Your task to perform on an android device: Go to calendar. Show me events next week Image 0: 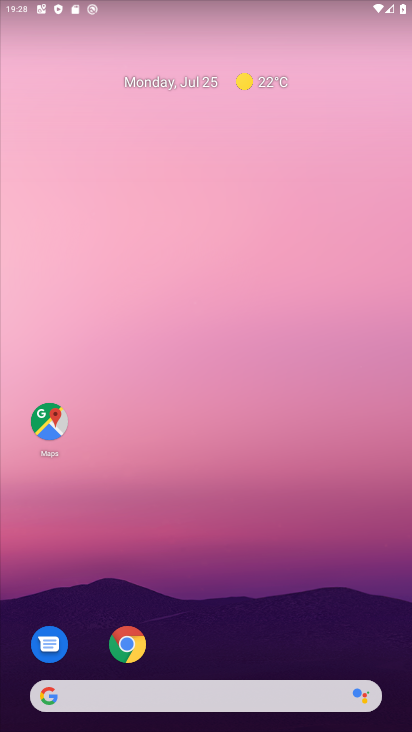
Step 0: press home button
Your task to perform on an android device: Go to calendar. Show me events next week Image 1: 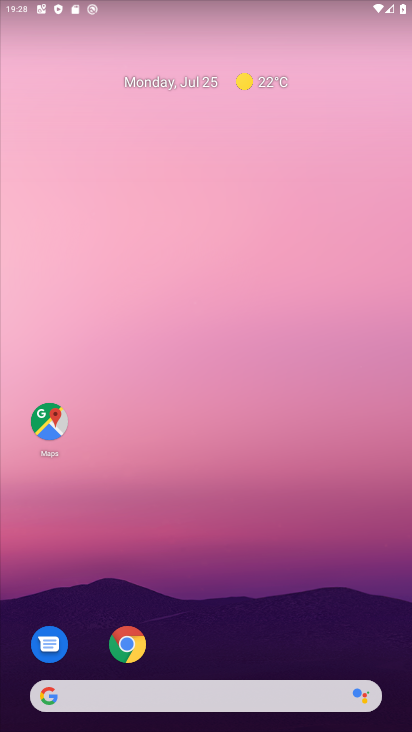
Step 1: drag from (207, 672) to (199, 52)
Your task to perform on an android device: Go to calendar. Show me events next week Image 2: 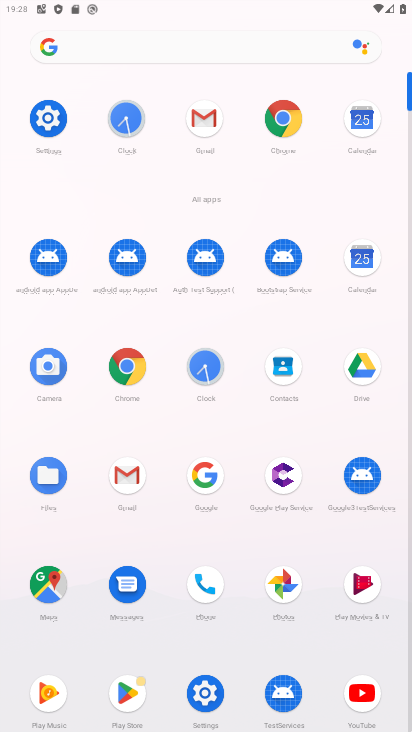
Step 2: click (361, 250)
Your task to perform on an android device: Go to calendar. Show me events next week Image 3: 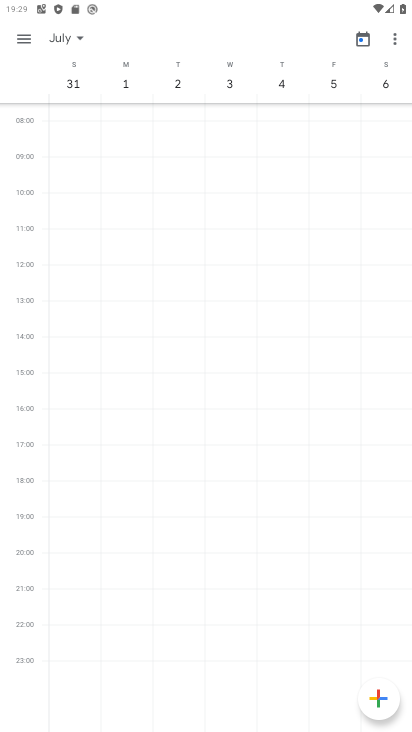
Step 3: click (28, 38)
Your task to perform on an android device: Go to calendar. Show me events next week Image 4: 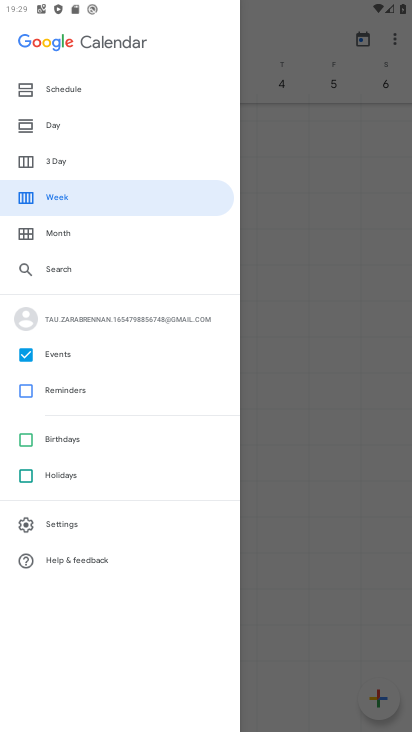
Step 4: click (60, 191)
Your task to perform on an android device: Go to calendar. Show me events next week Image 5: 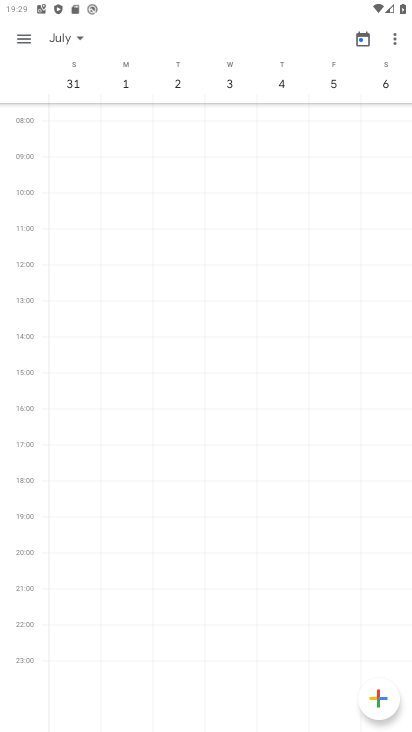
Step 5: task complete